Your task to perform on an android device: Show me the alarms in the clock app Image 0: 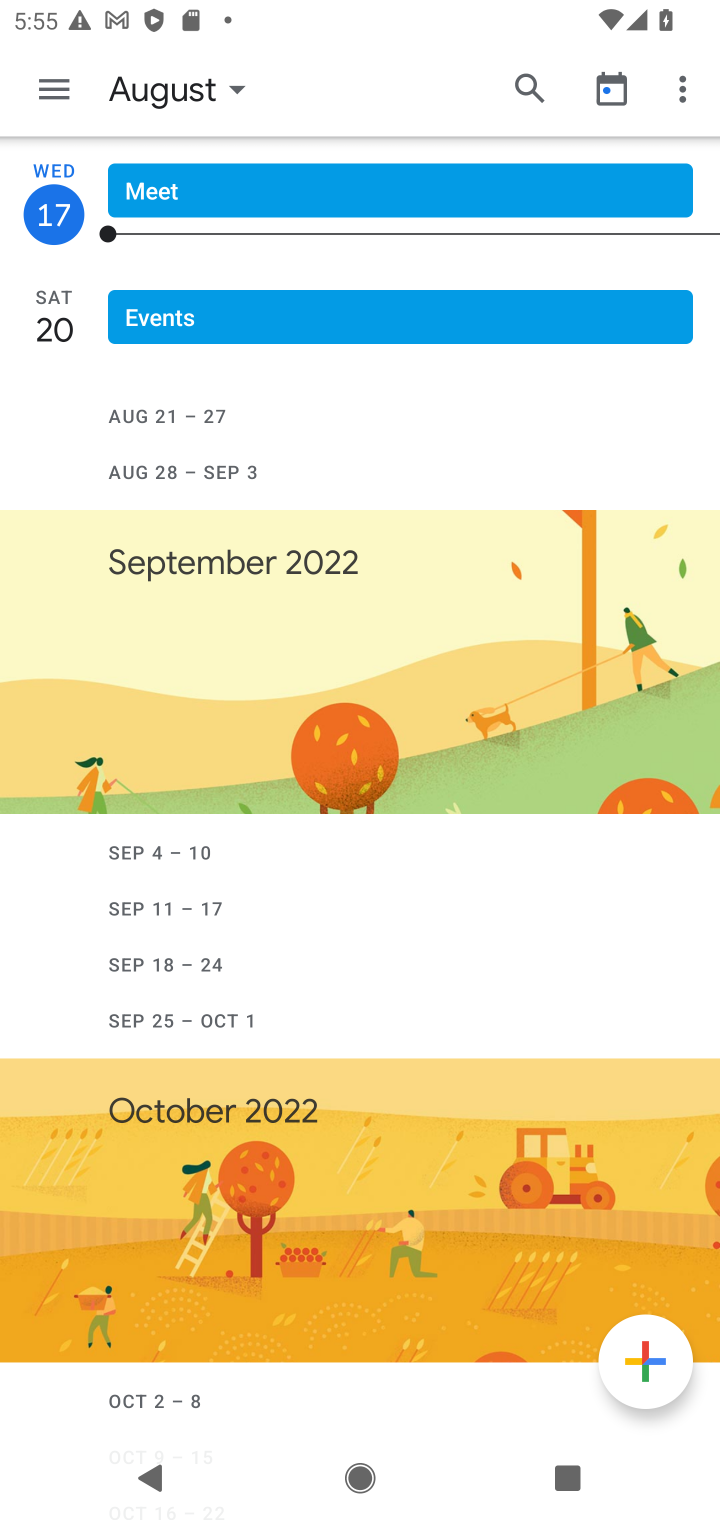
Step 0: press home button
Your task to perform on an android device: Show me the alarms in the clock app Image 1: 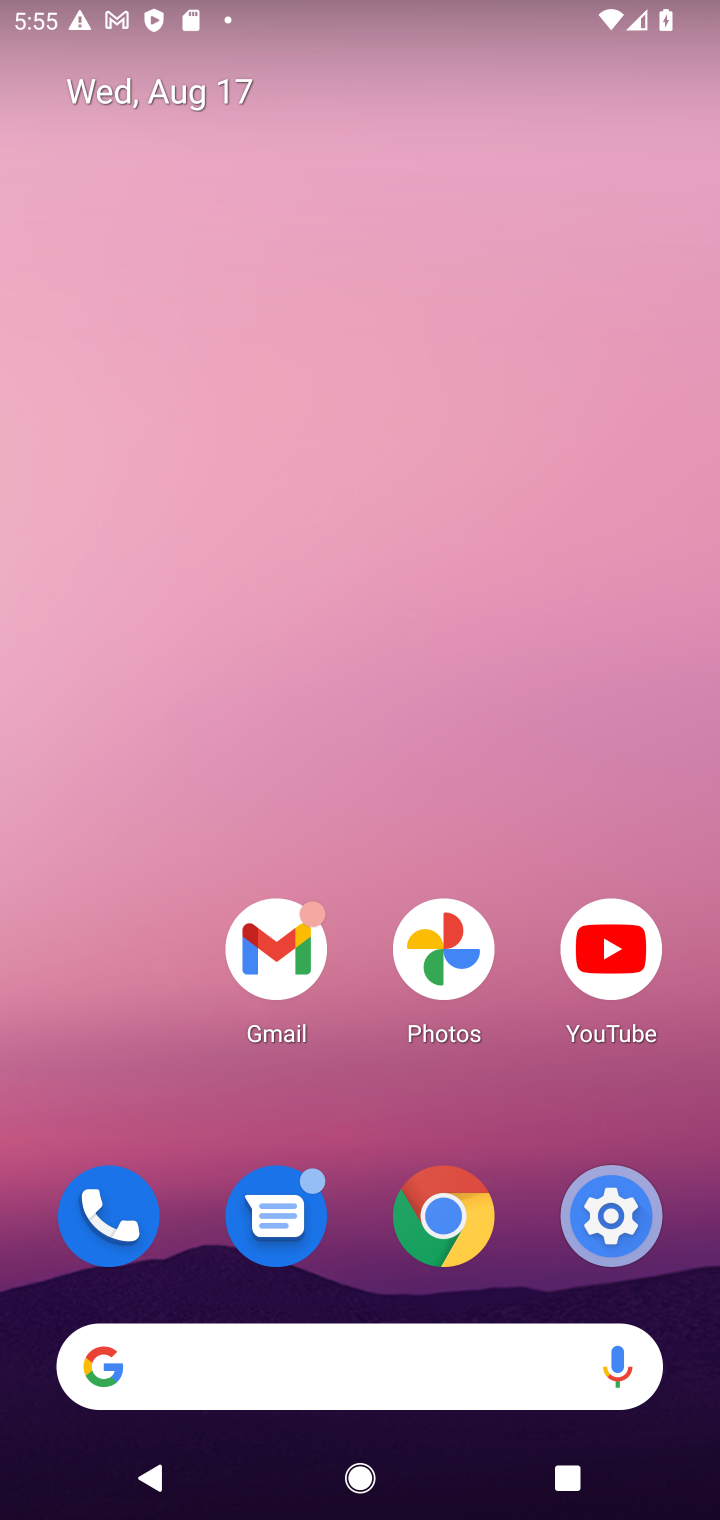
Step 1: drag from (512, 1066) to (529, 196)
Your task to perform on an android device: Show me the alarms in the clock app Image 2: 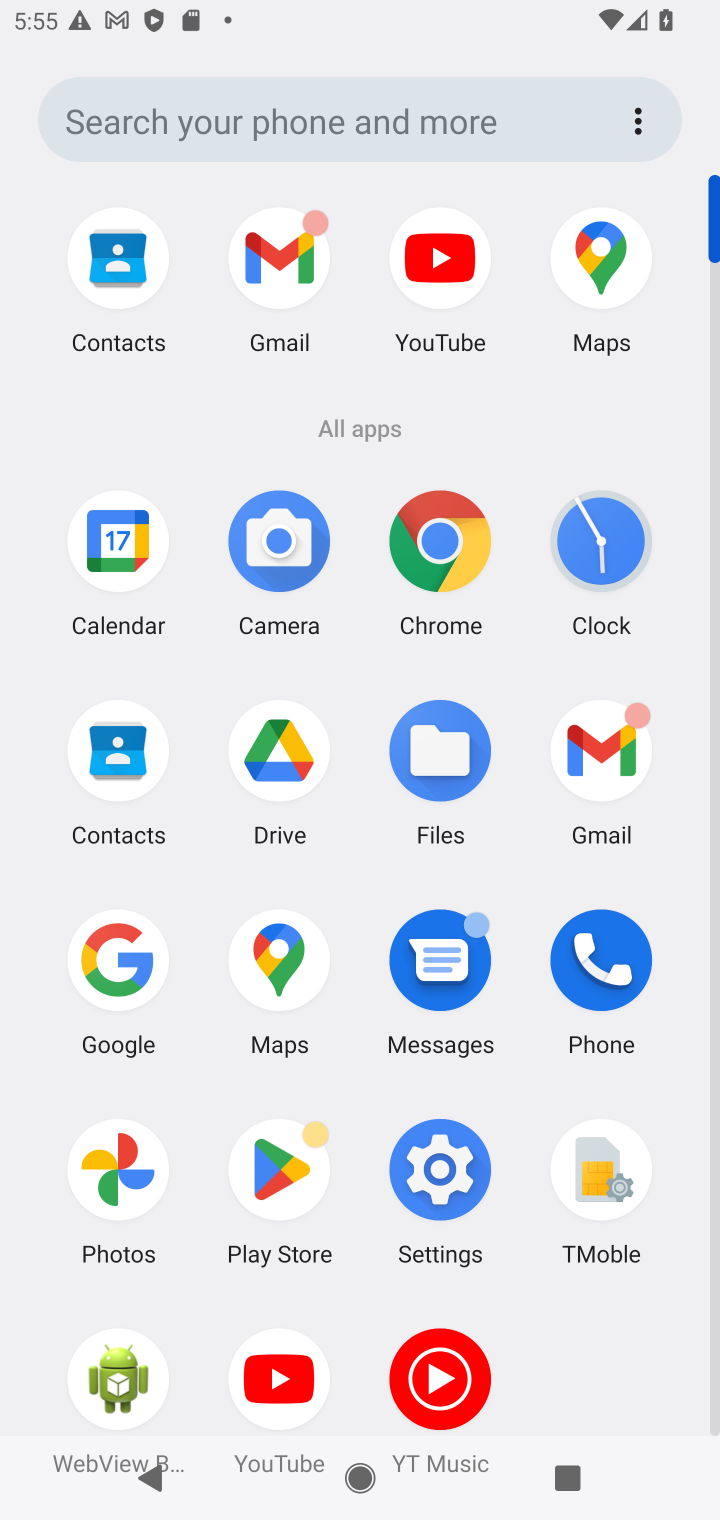
Step 2: click (578, 541)
Your task to perform on an android device: Show me the alarms in the clock app Image 3: 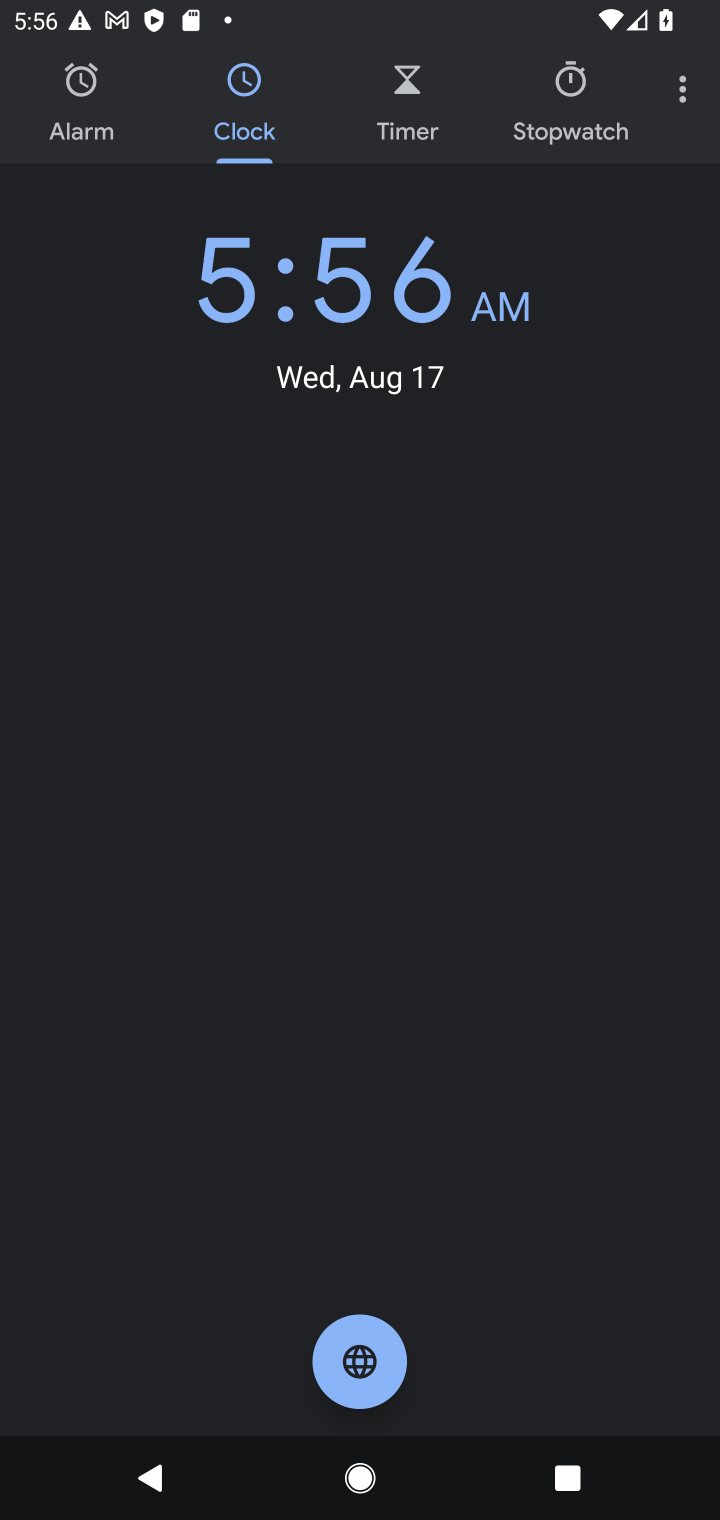
Step 3: click (85, 96)
Your task to perform on an android device: Show me the alarms in the clock app Image 4: 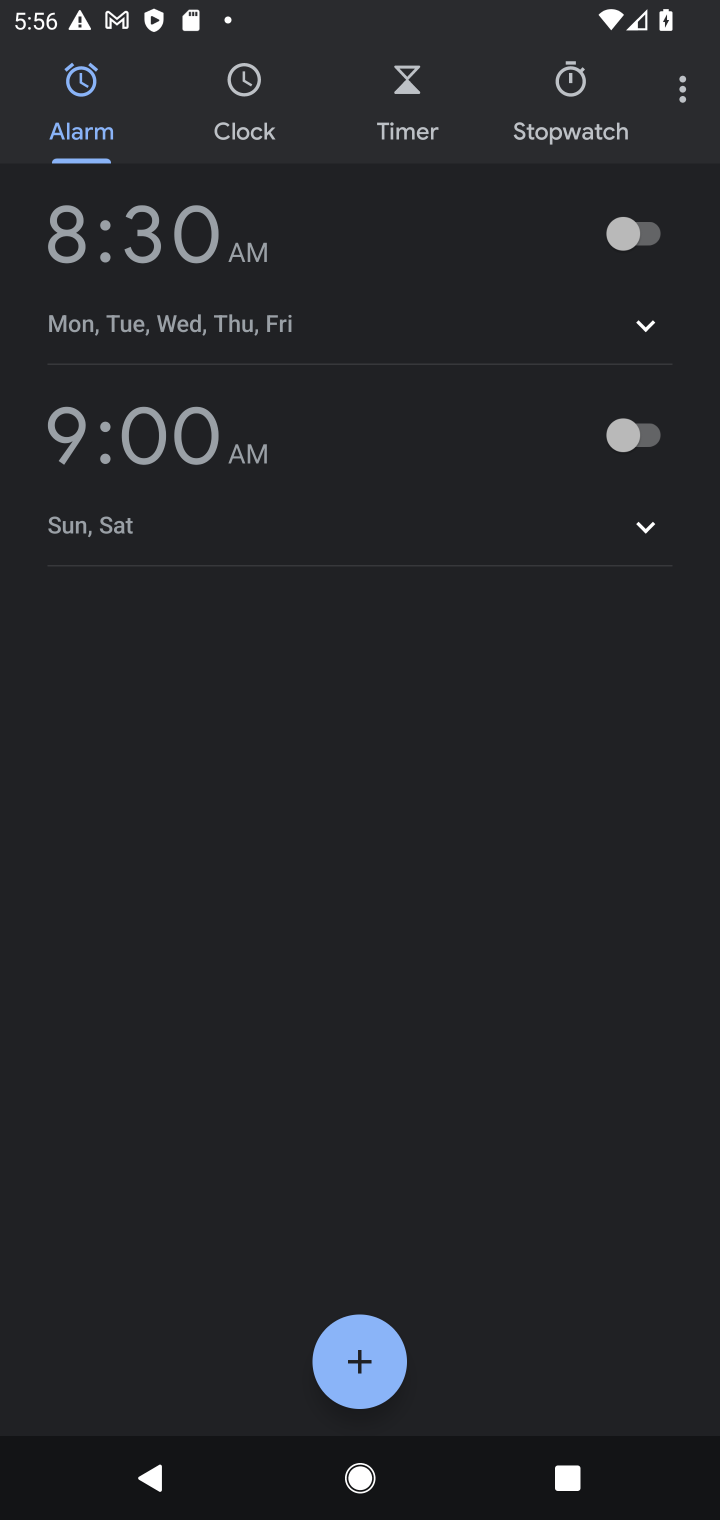
Step 4: task complete